Your task to perform on an android device: turn off notifications in google photos Image 0: 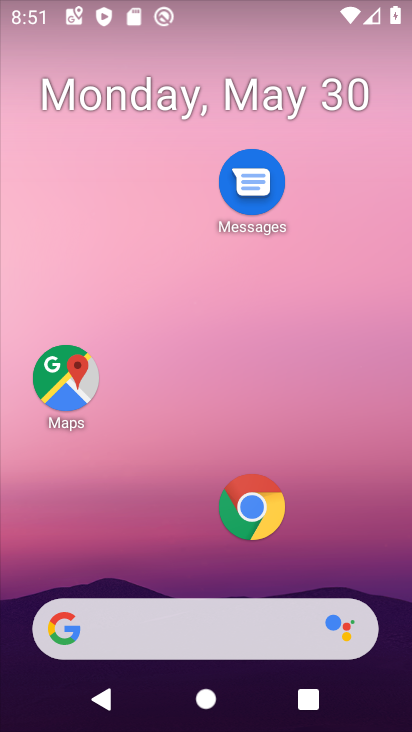
Step 0: drag from (203, 555) to (254, 24)
Your task to perform on an android device: turn off notifications in google photos Image 1: 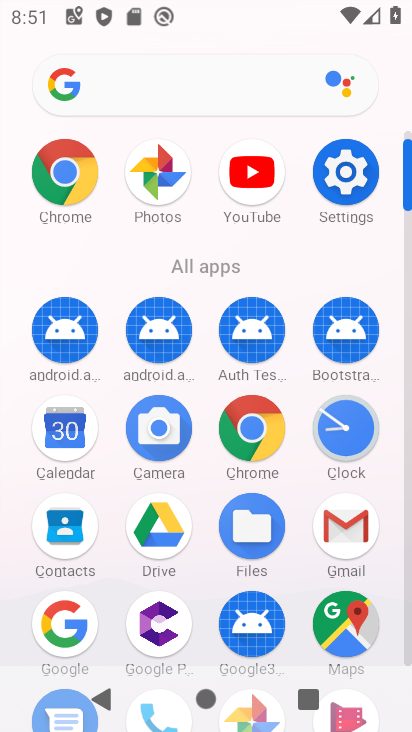
Step 1: click (345, 176)
Your task to perform on an android device: turn off notifications in google photos Image 2: 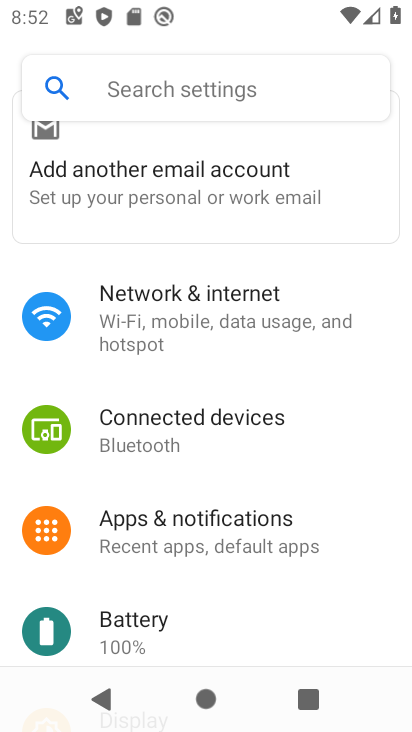
Step 2: click (177, 324)
Your task to perform on an android device: turn off notifications in google photos Image 3: 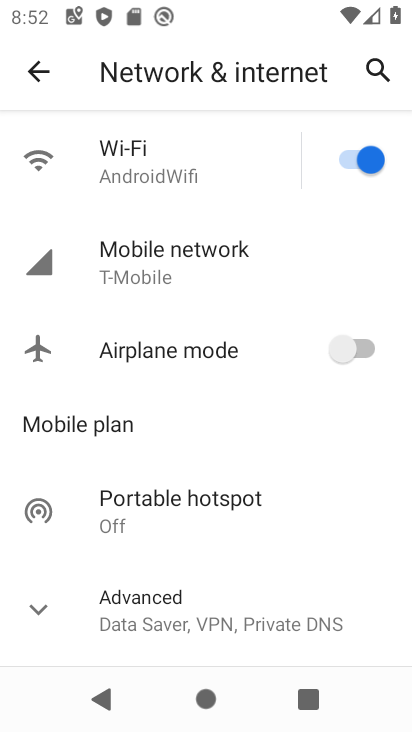
Step 3: task complete